Your task to perform on an android device: turn notification dots off Image 0: 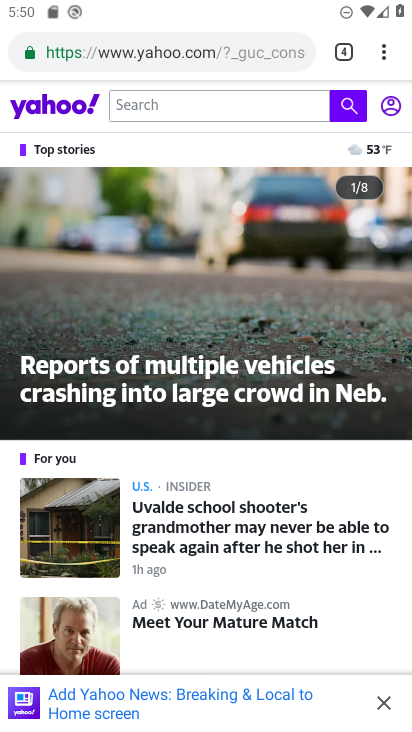
Step 0: press home button
Your task to perform on an android device: turn notification dots off Image 1: 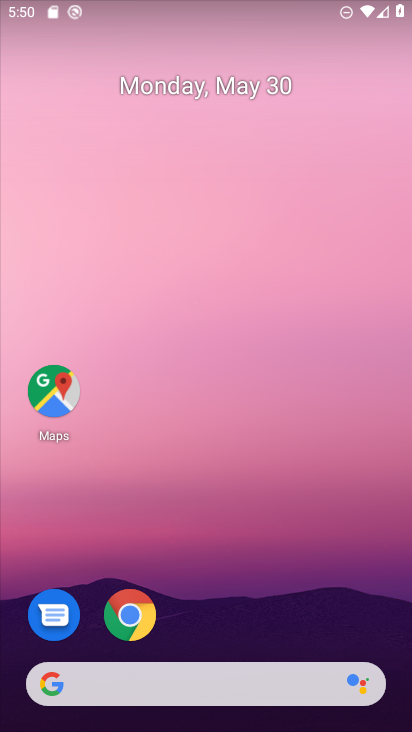
Step 1: drag from (216, 623) to (245, 16)
Your task to perform on an android device: turn notification dots off Image 2: 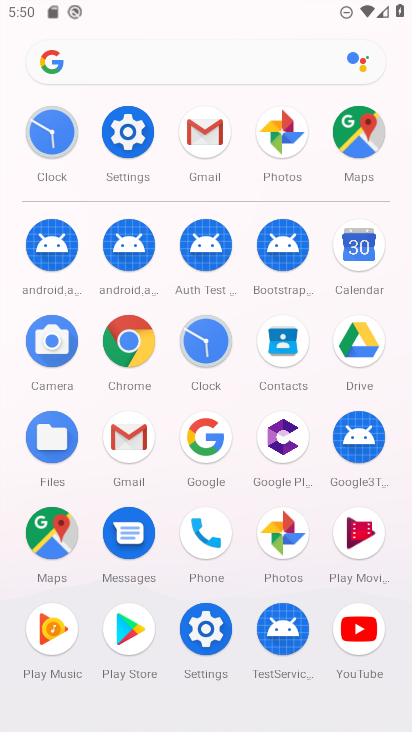
Step 2: click (118, 145)
Your task to perform on an android device: turn notification dots off Image 3: 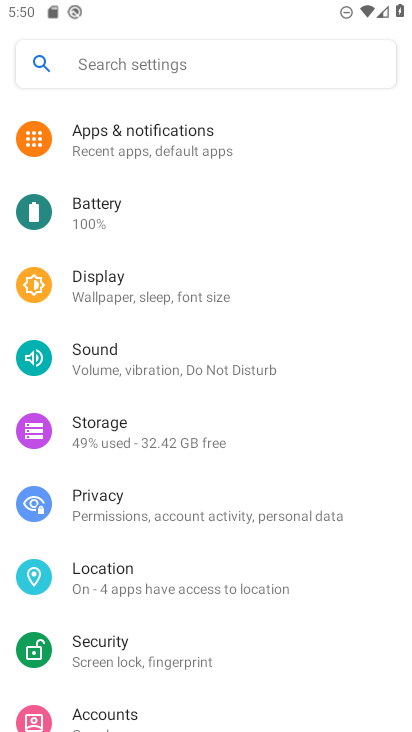
Step 3: click (120, 155)
Your task to perform on an android device: turn notification dots off Image 4: 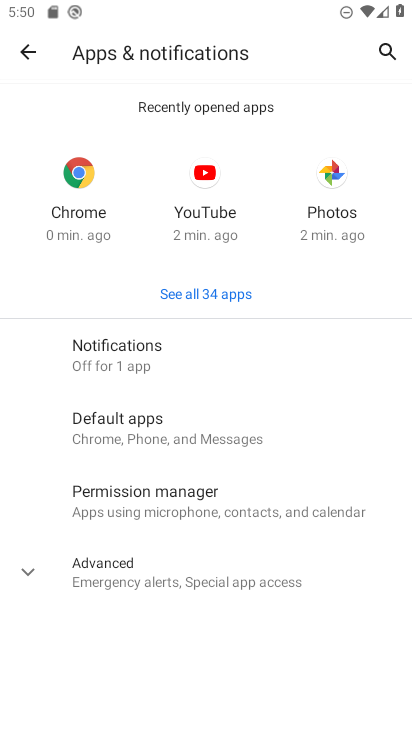
Step 4: click (95, 365)
Your task to perform on an android device: turn notification dots off Image 5: 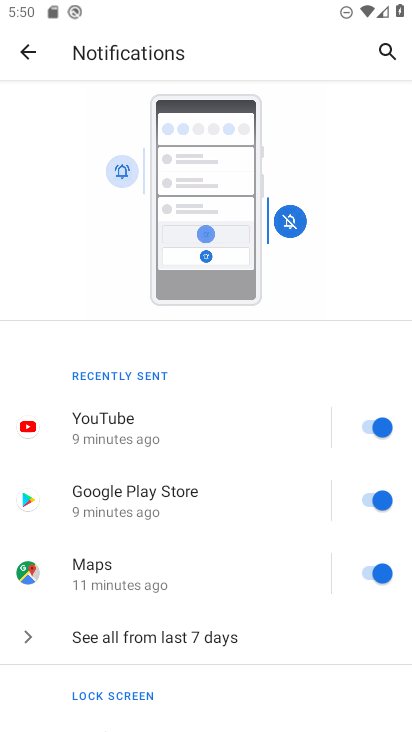
Step 5: drag from (160, 614) to (185, 184)
Your task to perform on an android device: turn notification dots off Image 6: 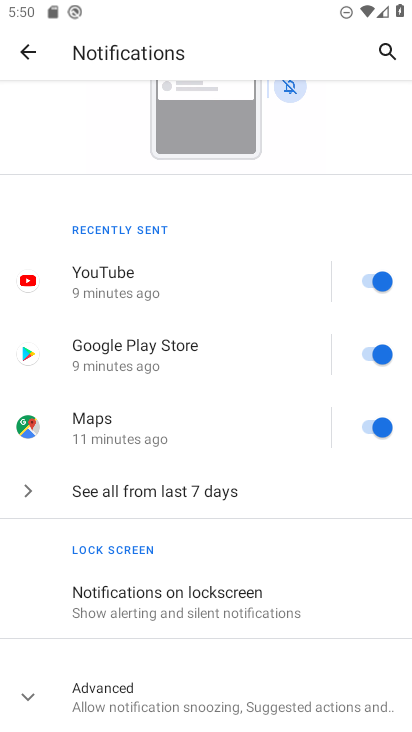
Step 6: click (129, 678)
Your task to perform on an android device: turn notification dots off Image 7: 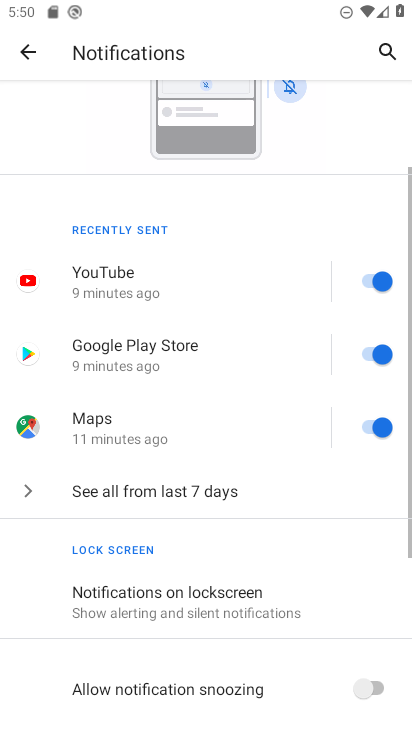
Step 7: drag from (129, 678) to (226, 106)
Your task to perform on an android device: turn notification dots off Image 8: 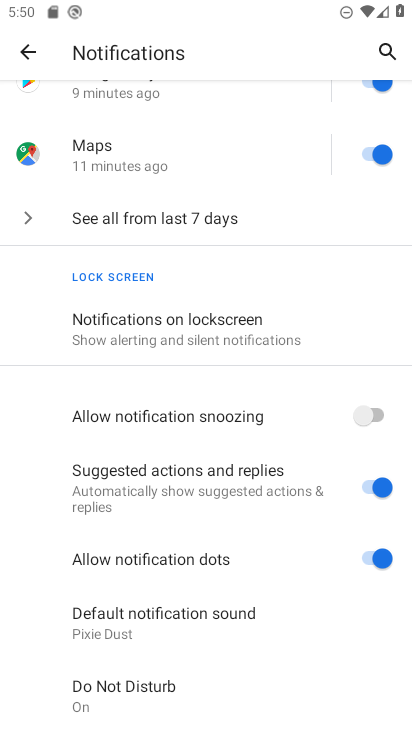
Step 8: click (385, 554)
Your task to perform on an android device: turn notification dots off Image 9: 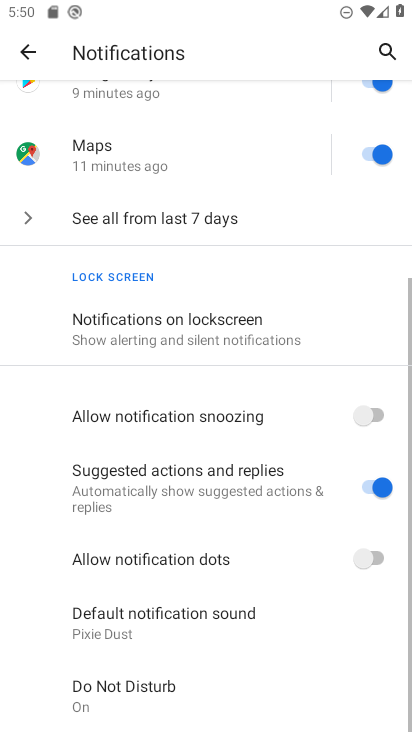
Step 9: task complete